Your task to perform on an android device: When is my next meeting? Image 0: 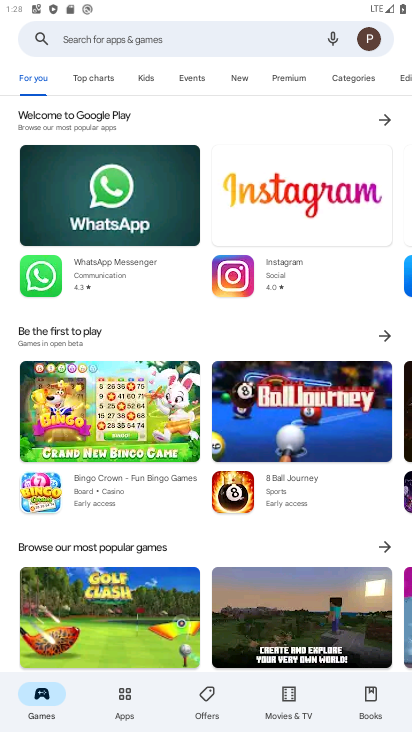
Step 0: press home button
Your task to perform on an android device: When is my next meeting? Image 1: 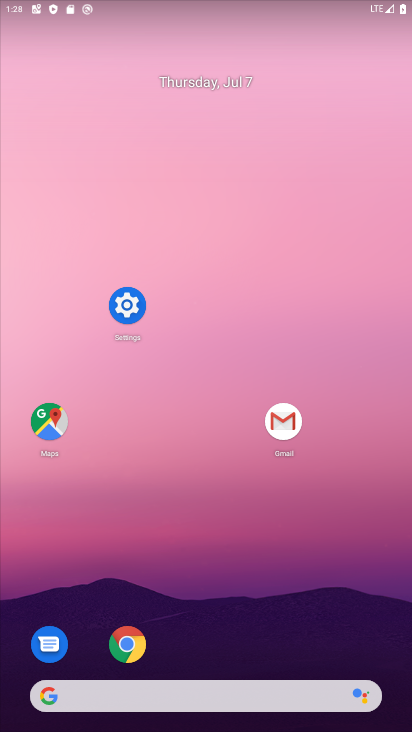
Step 1: drag from (400, 693) to (340, 160)
Your task to perform on an android device: When is my next meeting? Image 2: 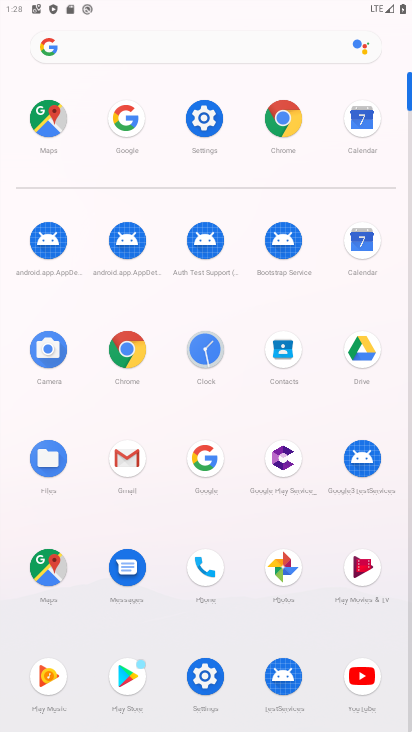
Step 2: click (359, 246)
Your task to perform on an android device: When is my next meeting? Image 3: 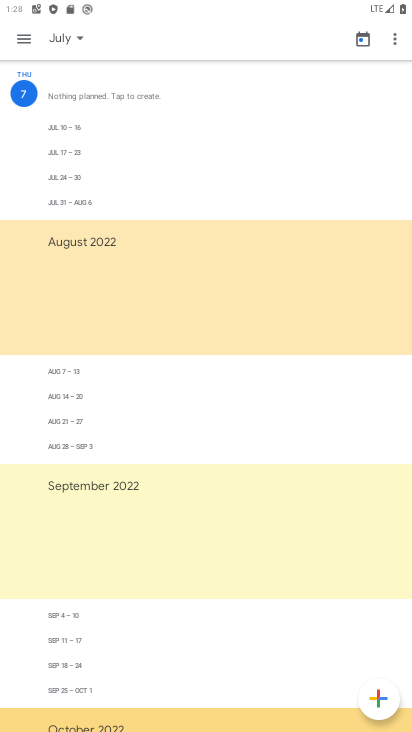
Step 3: click (26, 46)
Your task to perform on an android device: When is my next meeting? Image 4: 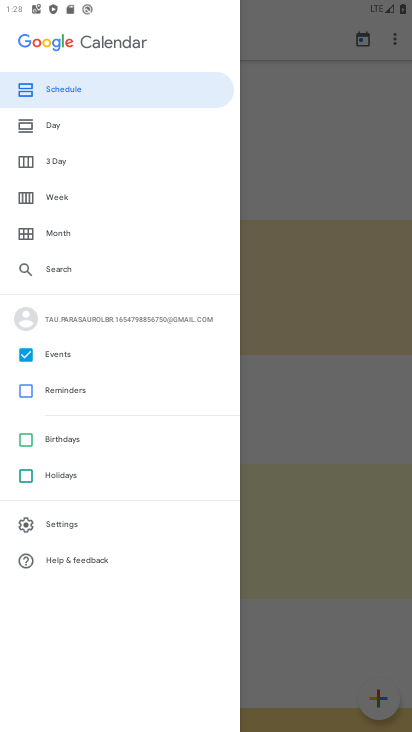
Step 4: click (78, 87)
Your task to perform on an android device: When is my next meeting? Image 5: 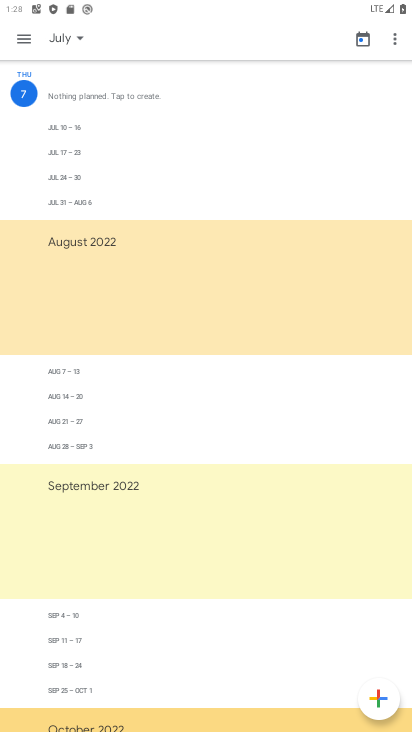
Step 5: task complete